Your task to perform on an android device: delete the emails in spam in the gmail app Image 0: 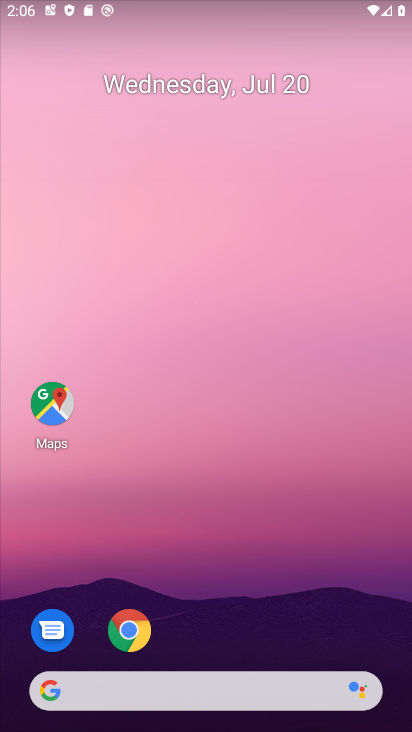
Step 0: press home button
Your task to perform on an android device: delete the emails in spam in the gmail app Image 1: 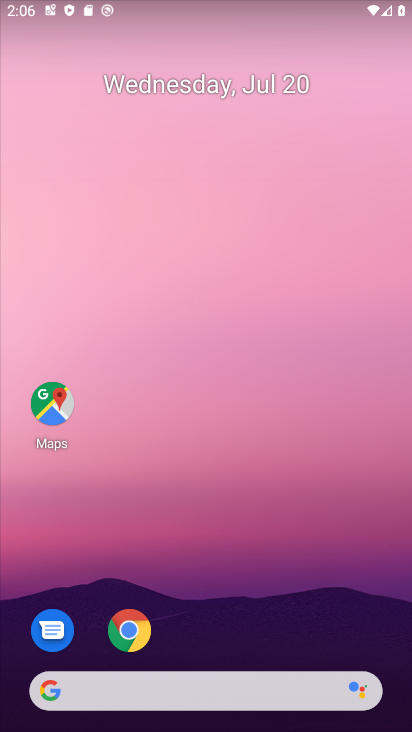
Step 1: drag from (349, 615) to (367, 96)
Your task to perform on an android device: delete the emails in spam in the gmail app Image 2: 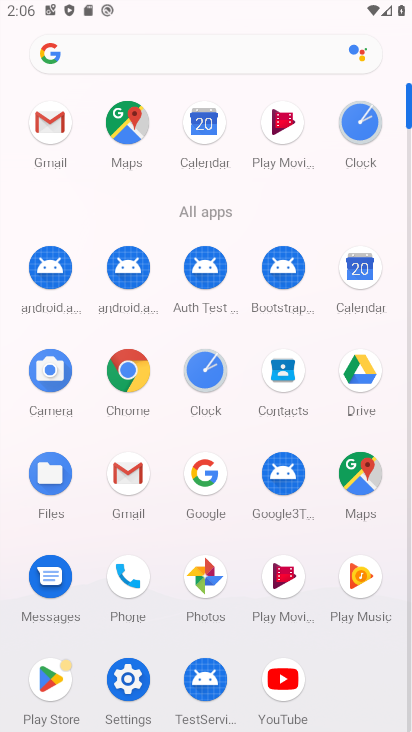
Step 2: click (120, 474)
Your task to perform on an android device: delete the emails in spam in the gmail app Image 3: 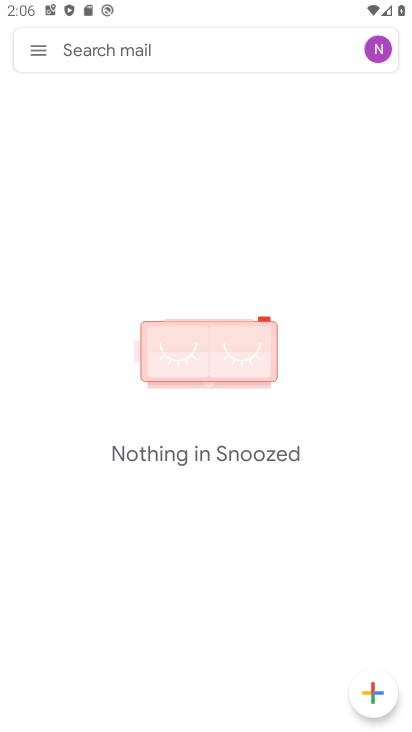
Step 3: click (48, 50)
Your task to perform on an android device: delete the emails in spam in the gmail app Image 4: 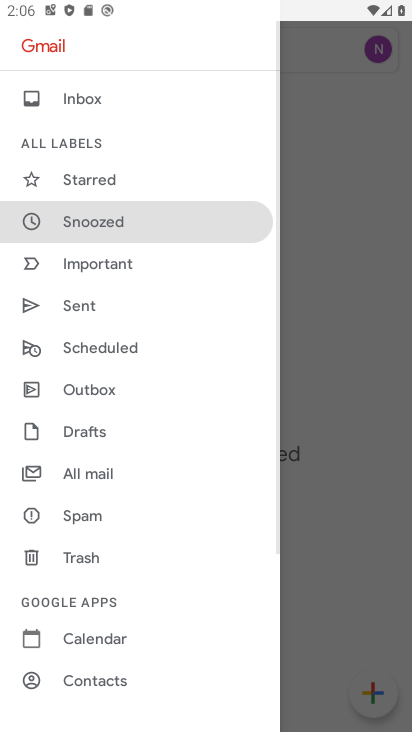
Step 4: drag from (194, 156) to (179, 360)
Your task to perform on an android device: delete the emails in spam in the gmail app Image 5: 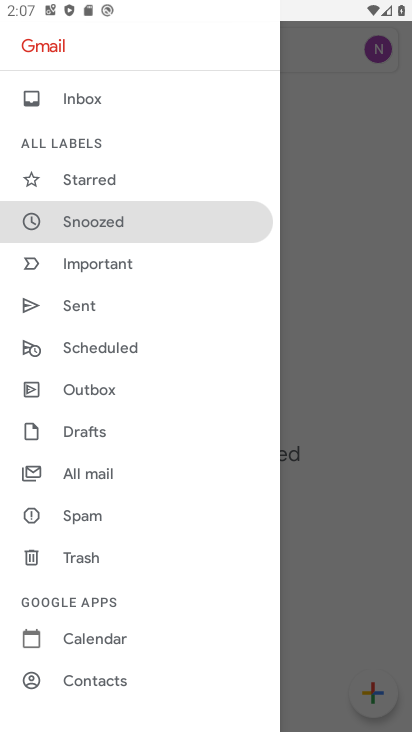
Step 5: click (96, 89)
Your task to perform on an android device: delete the emails in spam in the gmail app Image 6: 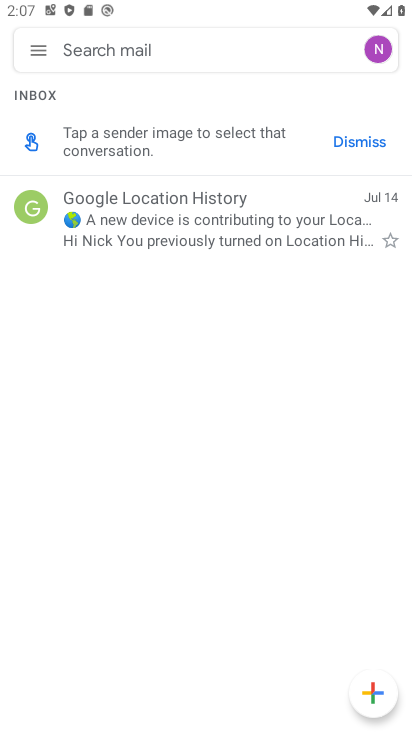
Step 6: click (247, 224)
Your task to perform on an android device: delete the emails in spam in the gmail app Image 7: 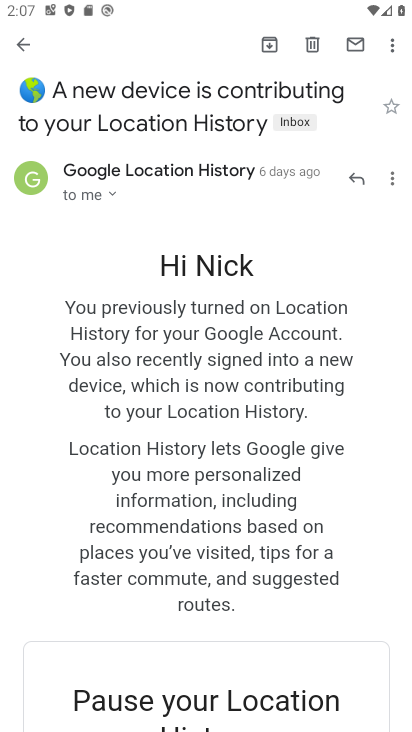
Step 7: click (315, 45)
Your task to perform on an android device: delete the emails in spam in the gmail app Image 8: 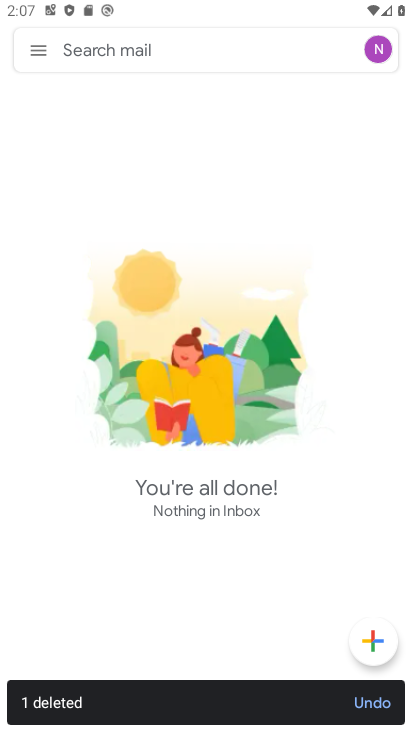
Step 8: task complete